Your task to perform on an android device: turn off improve location accuracy Image 0: 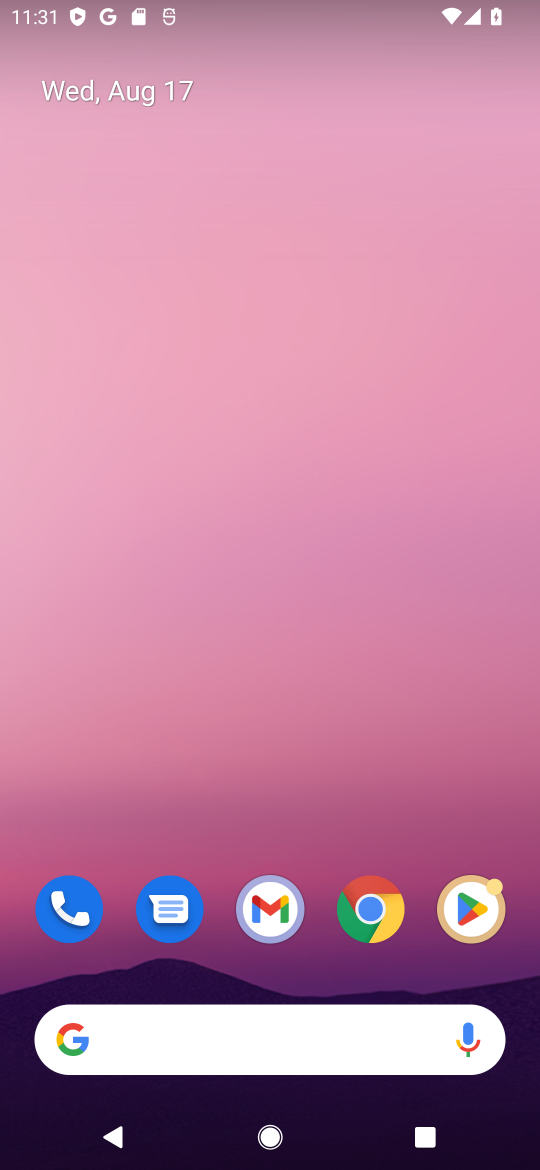
Step 0: drag from (307, 967) to (306, 294)
Your task to perform on an android device: turn off improve location accuracy Image 1: 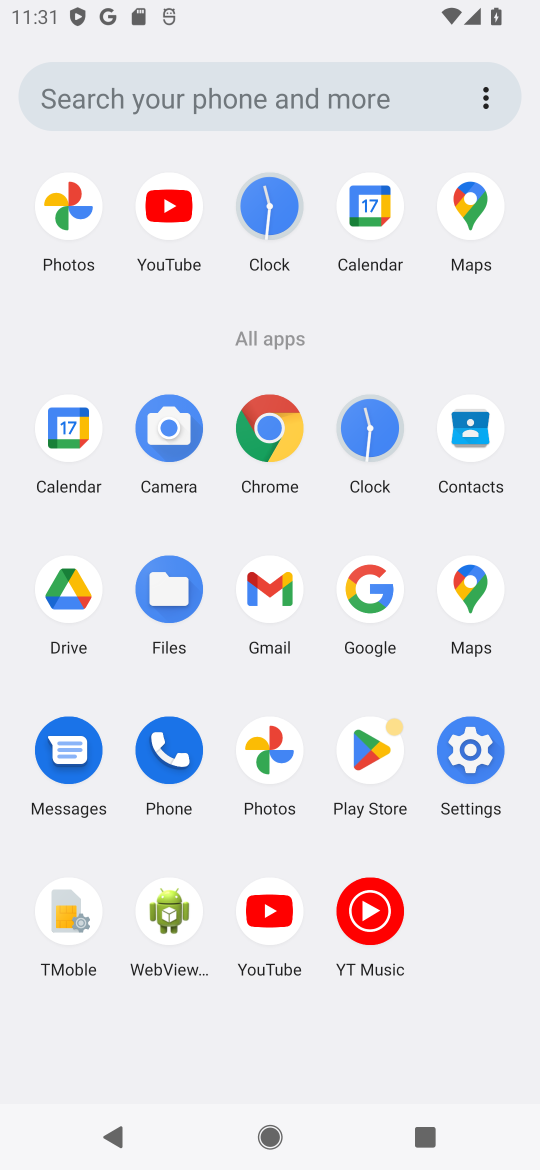
Step 1: click (470, 752)
Your task to perform on an android device: turn off improve location accuracy Image 2: 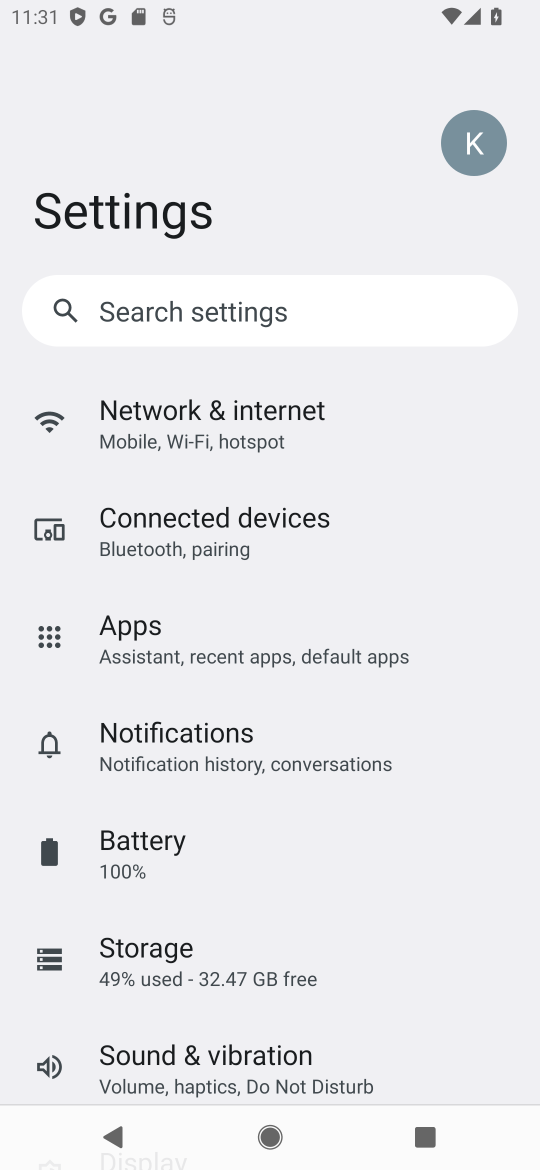
Step 2: drag from (286, 1008) to (286, 493)
Your task to perform on an android device: turn off improve location accuracy Image 3: 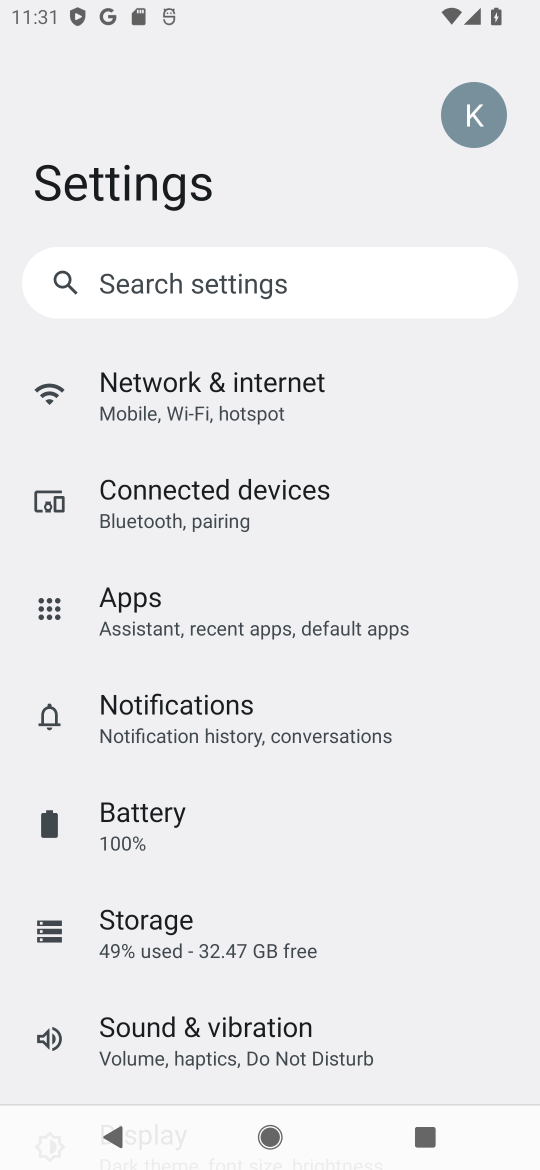
Step 3: drag from (342, 1006) to (305, 606)
Your task to perform on an android device: turn off improve location accuracy Image 4: 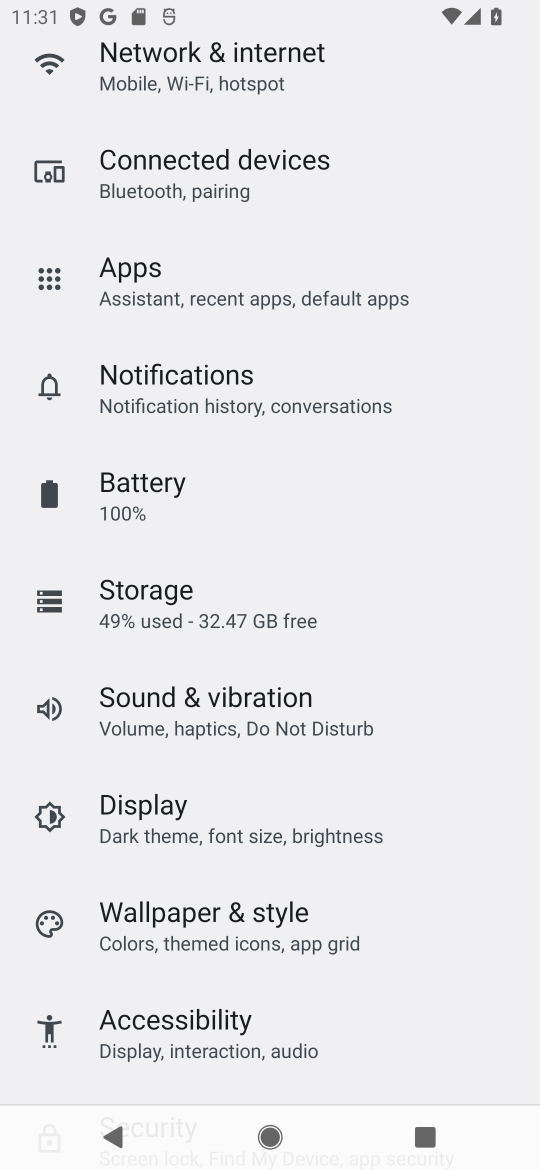
Step 4: drag from (285, 974) to (281, 617)
Your task to perform on an android device: turn off improve location accuracy Image 5: 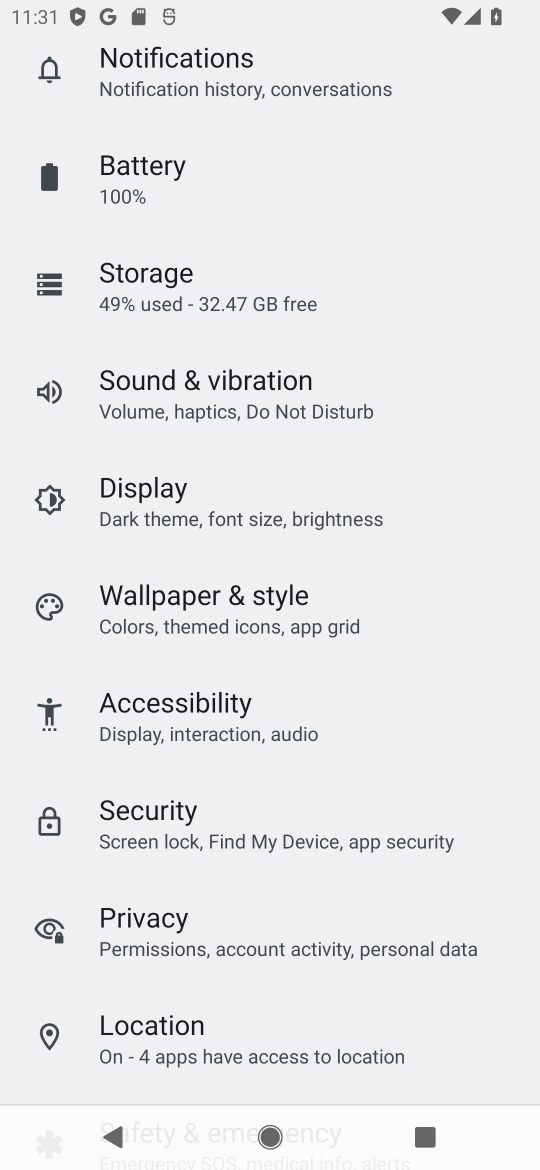
Step 5: click (164, 1033)
Your task to perform on an android device: turn off improve location accuracy Image 6: 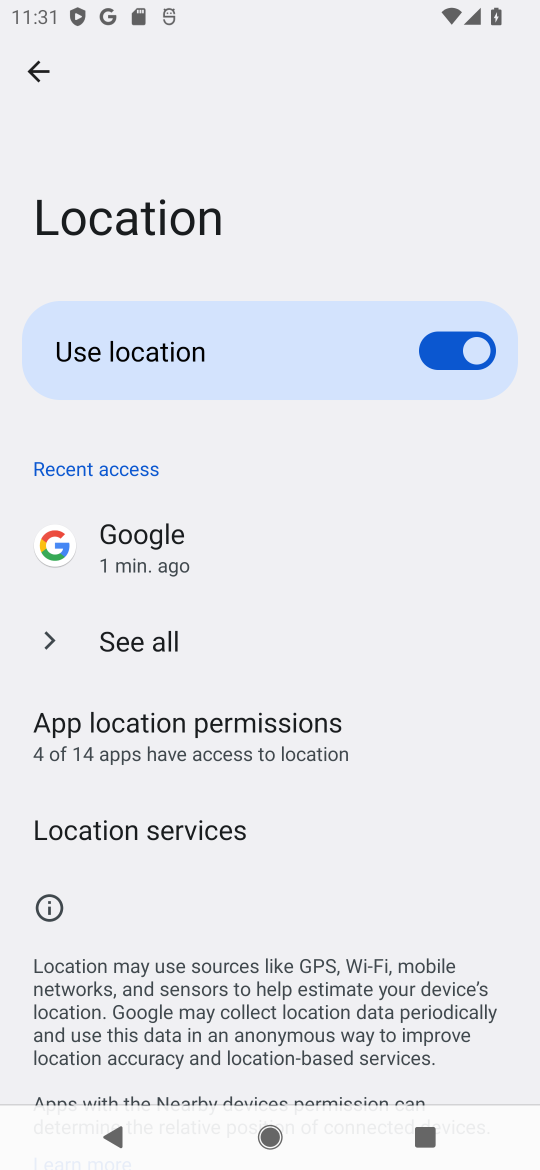
Step 6: click (131, 823)
Your task to perform on an android device: turn off improve location accuracy Image 7: 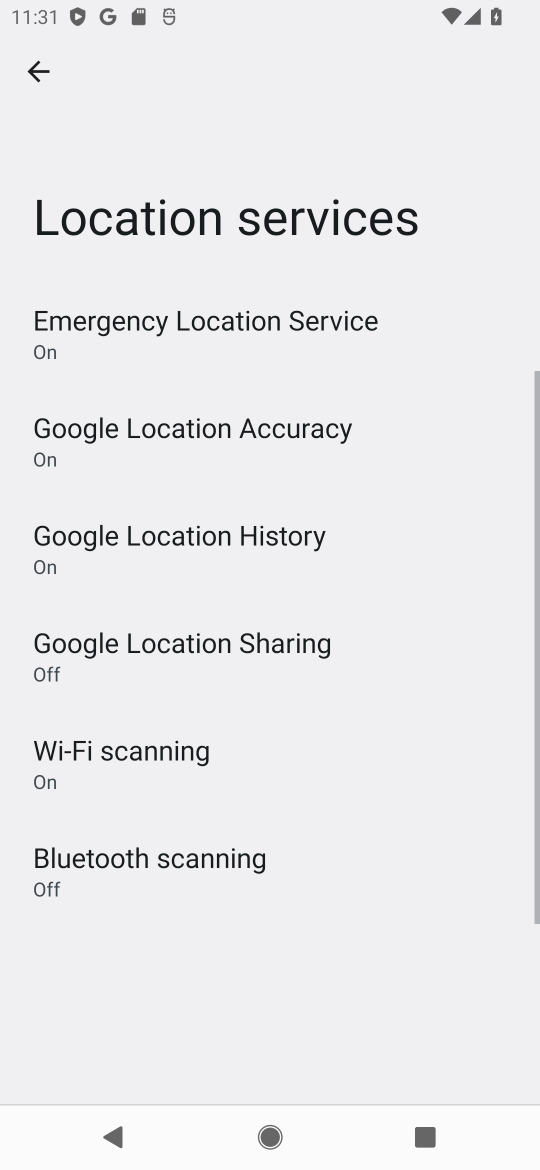
Step 7: click (200, 416)
Your task to perform on an android device: turn off improve location accuracy Image 8: 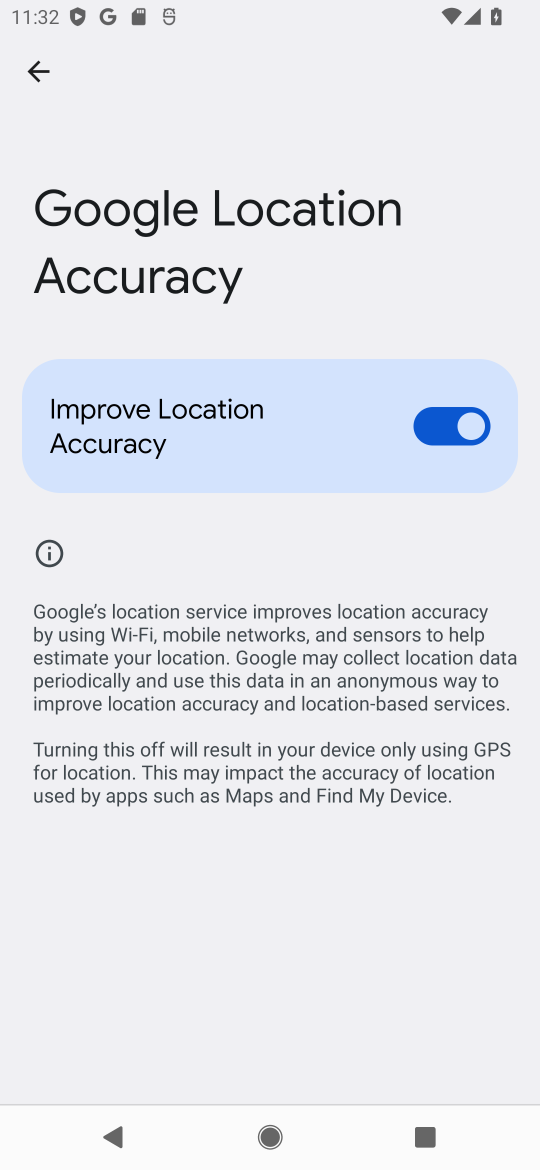
Step 8: click (456, 411)
Your task to perform on an android device: turn off improve location accuracy Image 9: 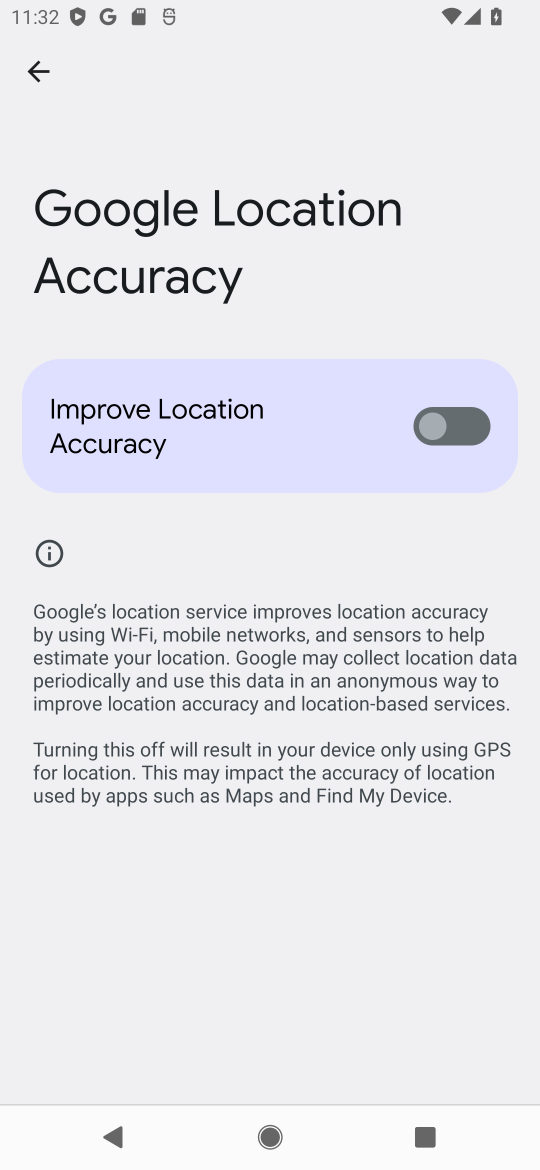
Step 9: task complete